Your task to perform on an android device: Go to location settings Image 0: 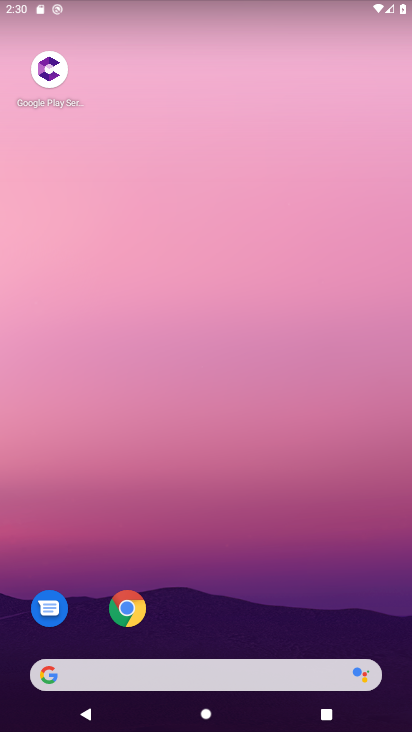
Step 0: drag from (226, 602) to (408, 53)
Your task to perform on an android device: Go to location settings Image 1: 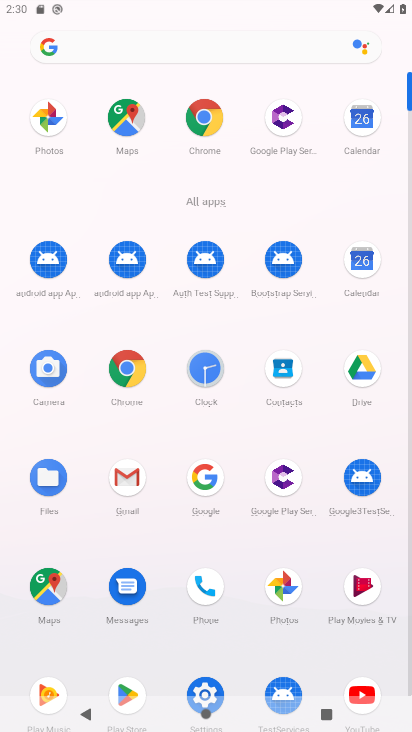
Step 1: click (209, 690)
Your task to perform on an android device: Go to location settings Image 2: 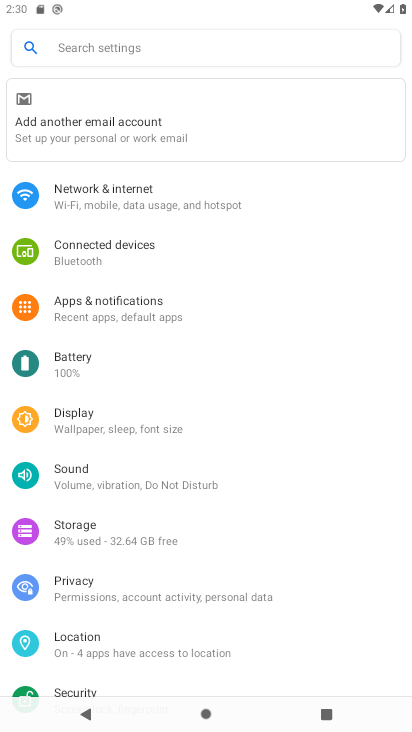
Step 2: click (133, 639)
Your task to perform on an android device: Go to location settings Image 3: 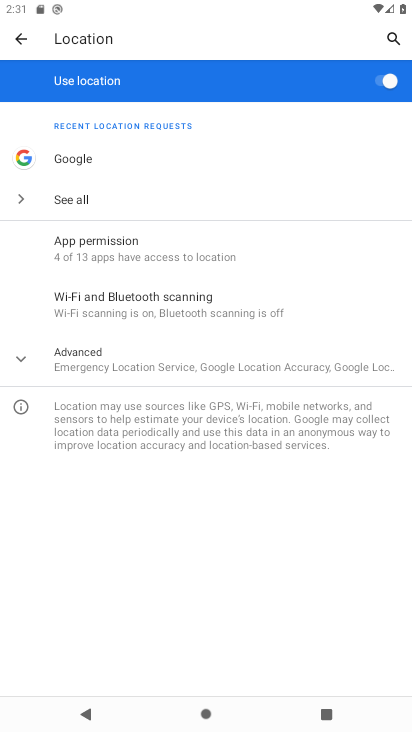
Step 3: task complete